Your task to perform on an android device: change notifications settings Image 0: 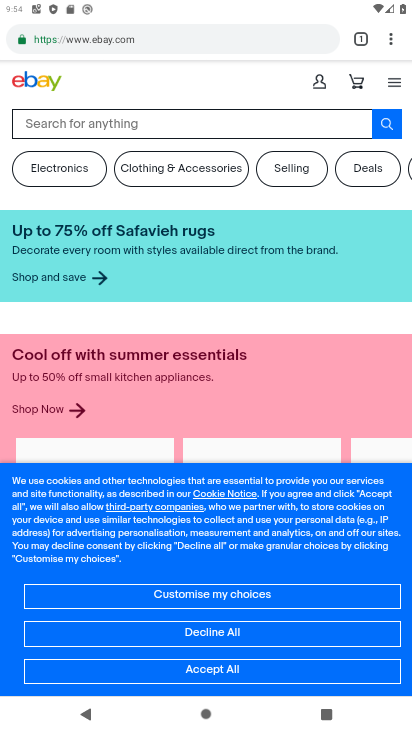
Step 0: press home button
Your task to perform on an android device: change notifications settings Image 1: 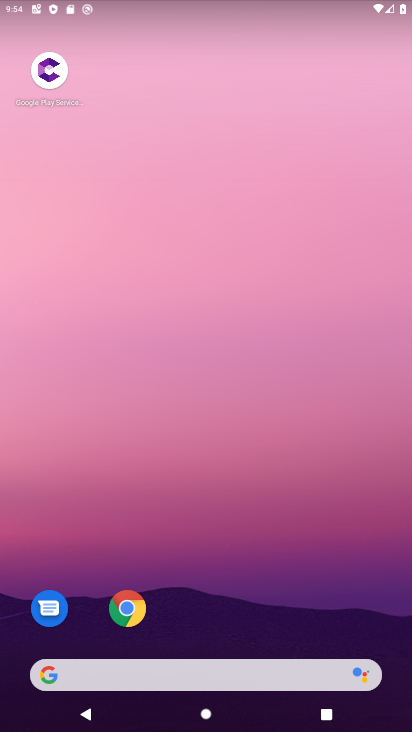
Step 1: drag from (222, 542) to (299, 8)
Your task to perform on an android device: change notifications settings Image 2: 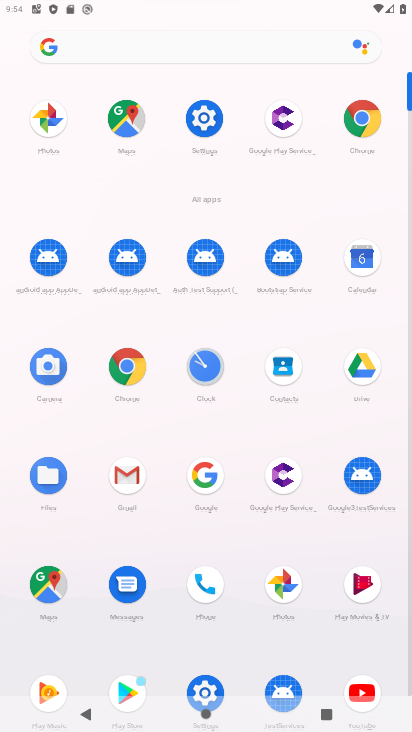
Step 2: click (207, 685)
Your task to perform on an android device: change notifications settings Image 3: 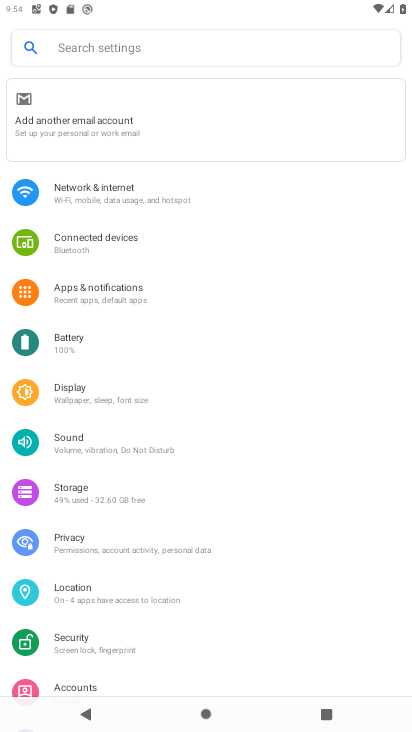
Step 3: click (122, 287)
Your task to perform on an android device: change notifications settings Image 4: 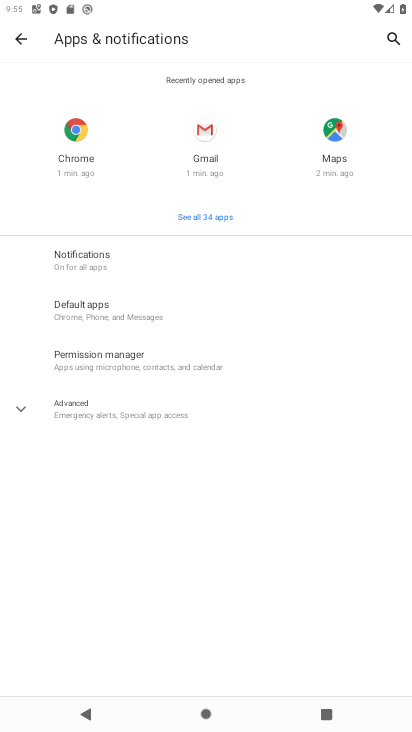
Step 4: click (86, 264)
Your task to perform on an android device: change notifications settings Image 5: 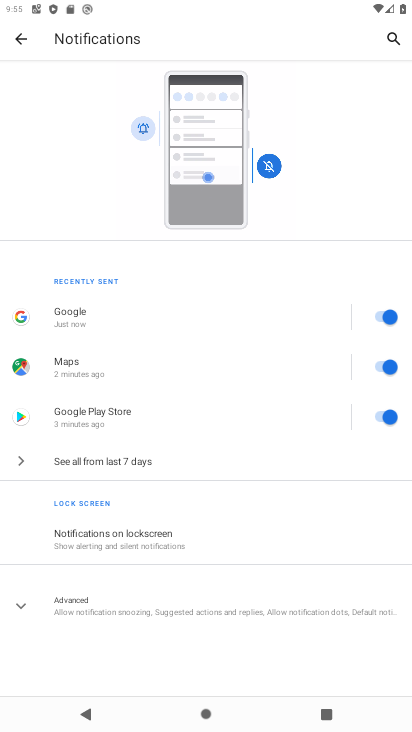
Step 5: click (377, 315)
Your task to perform on an android device: change notifications settings Image 6: 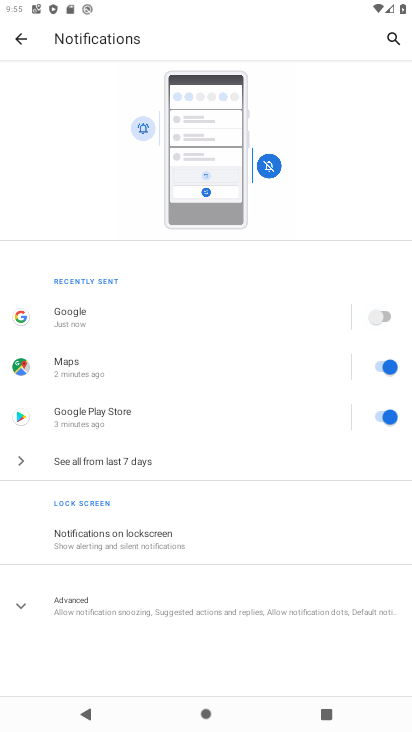
Step 6: click (387, 371)
Your task to perform on an android device: change notifications settings Image 7: 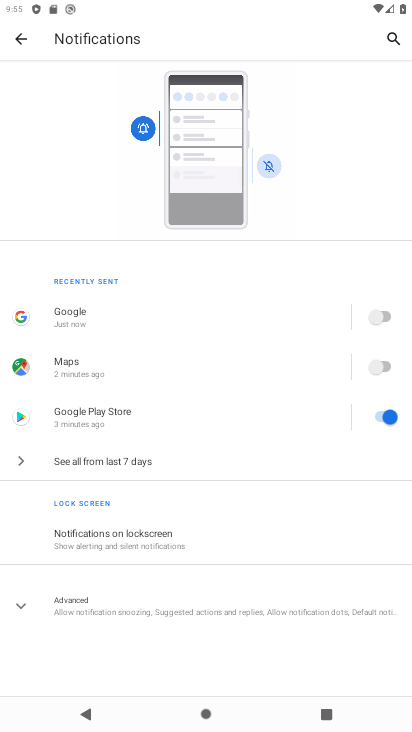
Step 7: click (378, 425)
Your task to perform on an android device: change notifications settings Image 8: 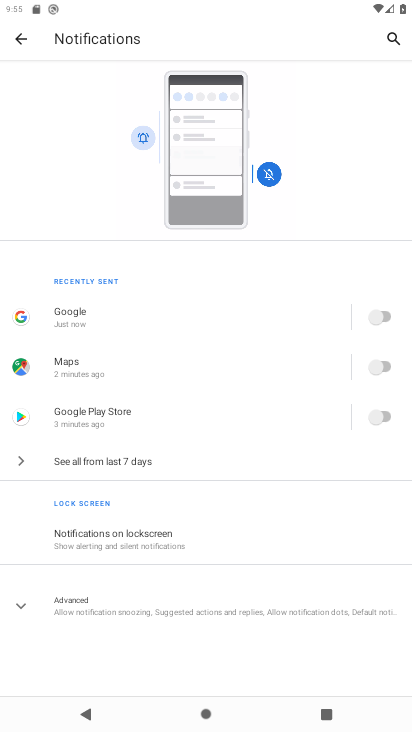
Step 8: click (97, 457)
Your task to perform on an android device: change notifications settings Image 9: 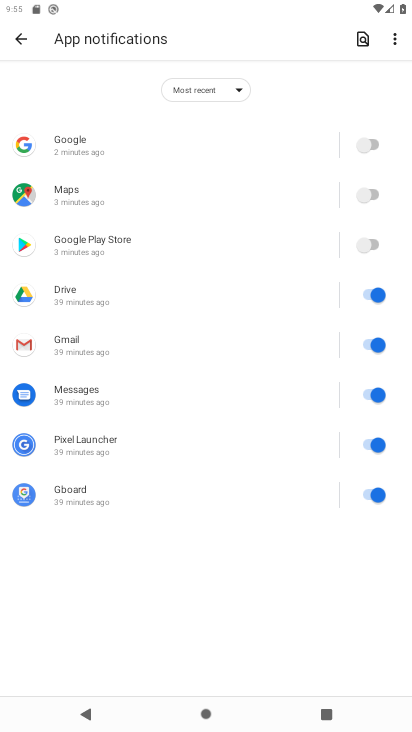
Step 9: click (367, 294)
Your task to perform on an android device: change notifications settings Image 10: 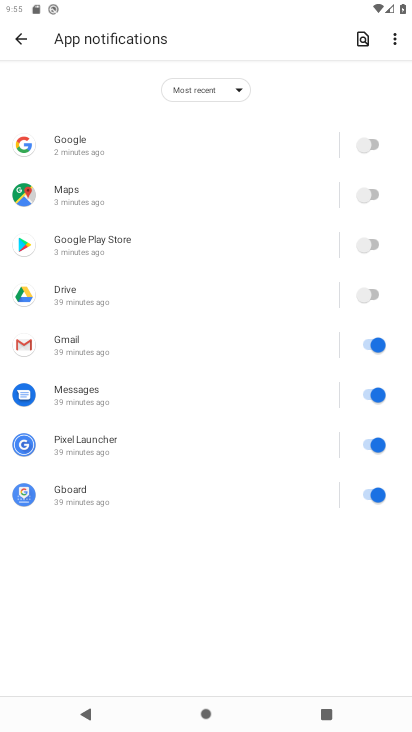
Step 10: click (363, 357)
Your task to perform on an android device: change notifications settings Image 11: 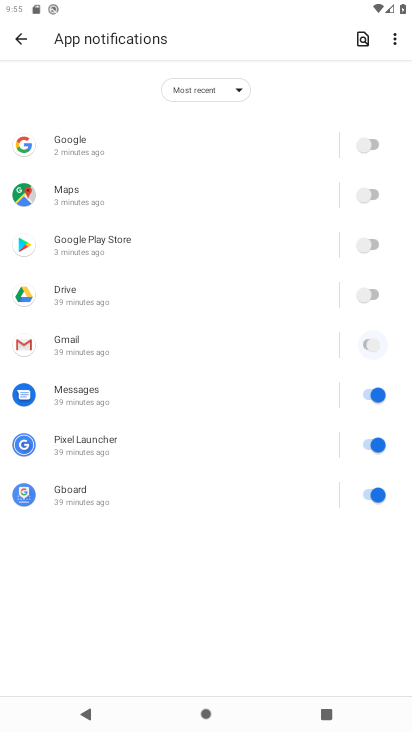
Step 11: click (364, 390)
Your task to perform on an android device: change notifications settings Image 12: 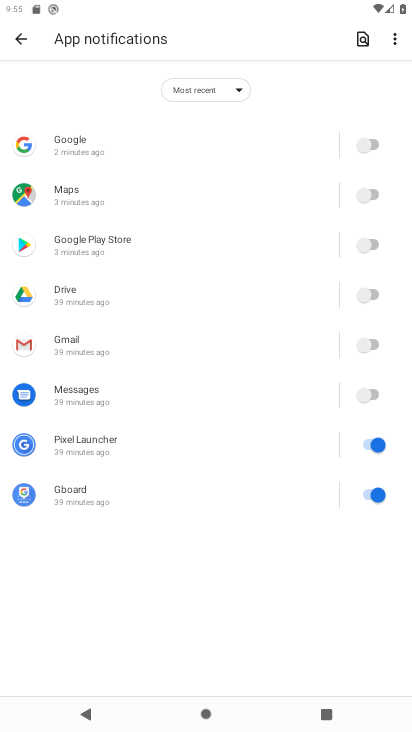
Step 12: click (370, 437)
Your task to perform on an android device: change notifications settings Image 13: 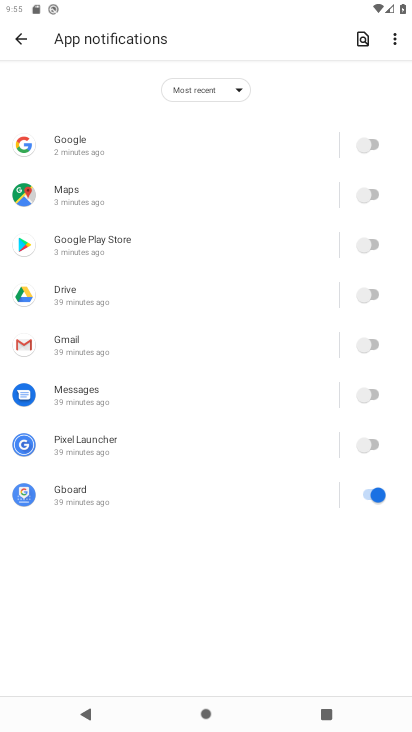
Step 13: click (365, 486)
Your task to perform on an android device: change notifications settings Image 14: 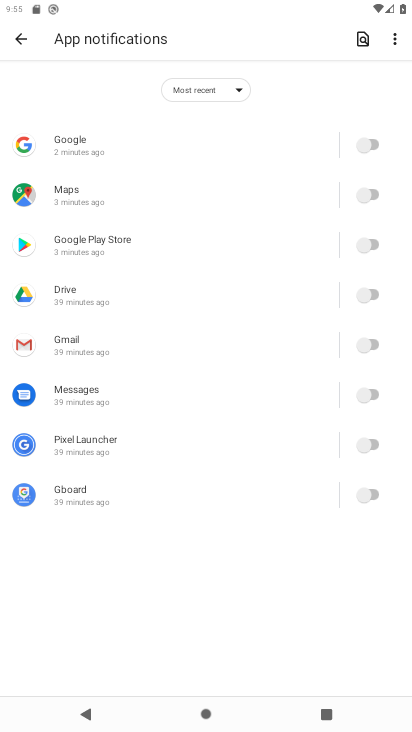
Step 14: task complete